Your task to perform on an android device: Open calendar and show me the second week of next month Image 0: 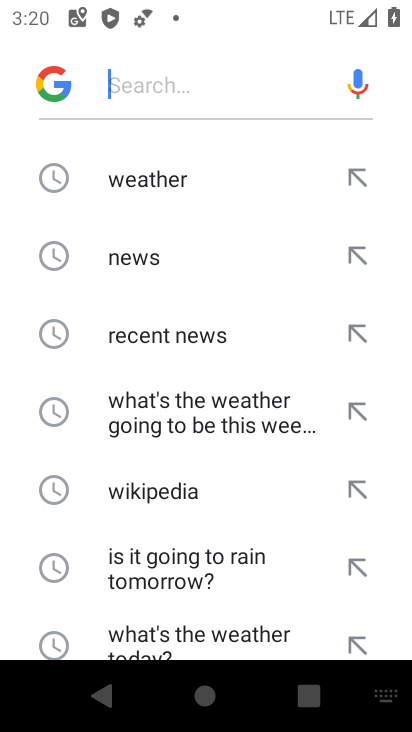
Step 0: press home button
Your task to perform on an android device: Open calendar and show me the second week of next month Image 1: 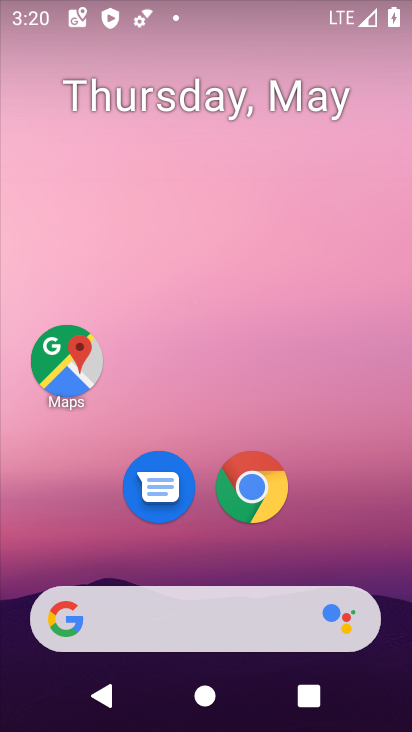
Step 1: drag from (239, 595) to (265, 140)
Your task to perform on an android device: Open calendar and show me the second week of next month Image 2: 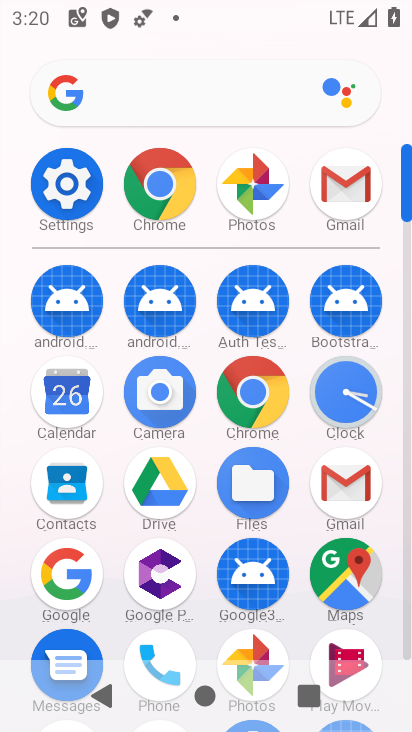
Step 2: click (67, 409)
Your task to perform on an android device: Open calendar and show me the second week of next month Image 3: 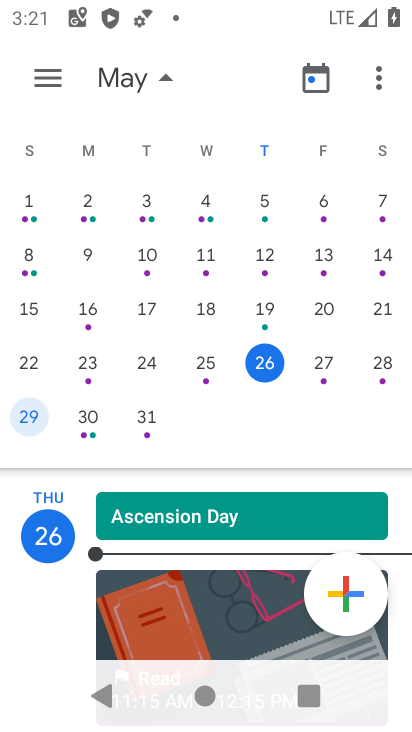
Step 3: drag from (368, 391) to (1, 285)
Your task to perform on an android device: Open calendar and show me the second week of next month Image 4: 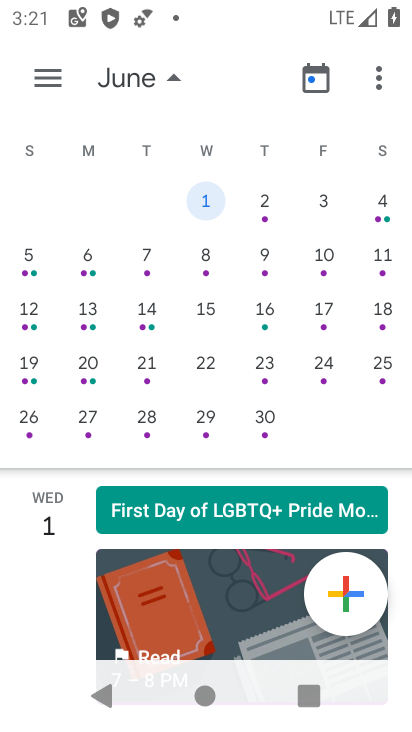
Step 4: click (33, 277)
Your task to perform on an android device: Open calendar and show me the second week of next month Image 5: 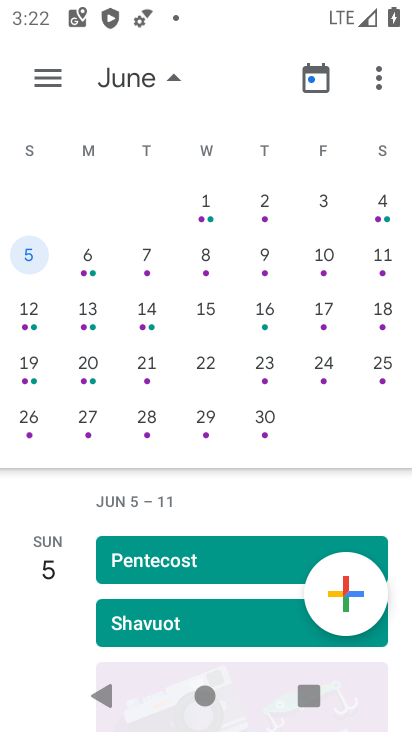
Step 5: task complete